Your task to perform on an android device: open chrome and create a bookmark for the current page Image 0: 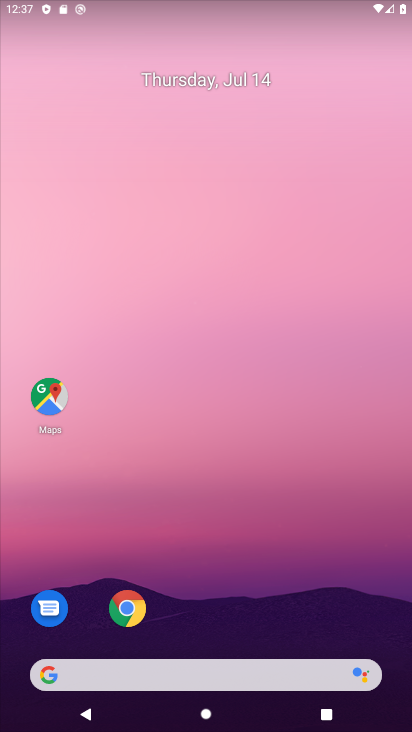
Step 0: drag from (273, 443) to (294, 33)
Your task to perform on an android device: open chrome and create a bookmark for the current page Image 1: 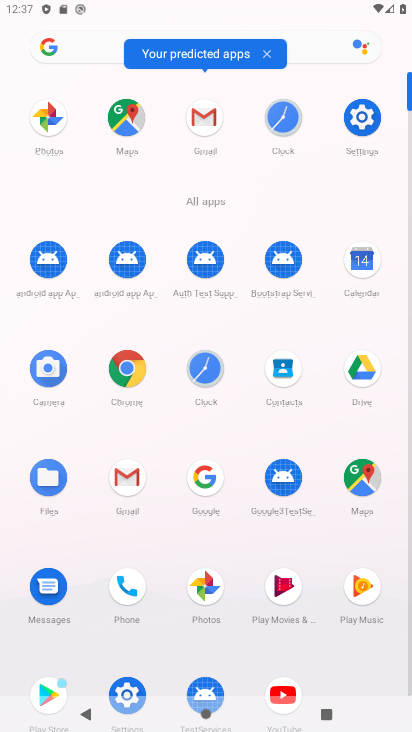
Step 1: click (123, 365)
Your task to perform on an android device: open chrome and create a bookmark for the current page Image 2: 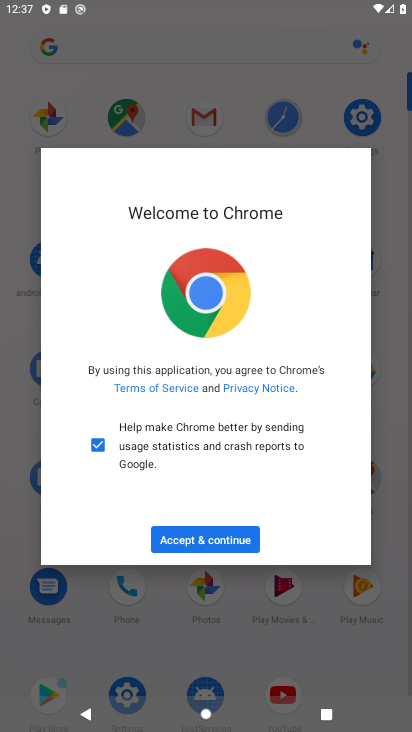
Step 2: click (187, 540)
Your task to perform on an android device: open chrome and create a bookmark for the current page Image 3: 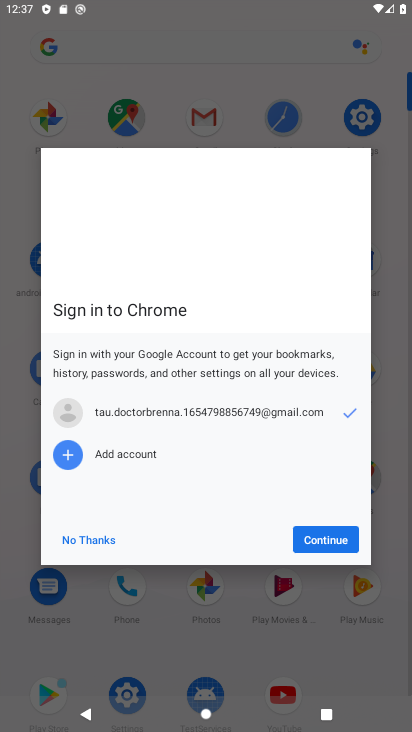
Step 3: click (96, 543)
Your task to perform on an android device: open chrome and create a bookmark for the current page Image 4: 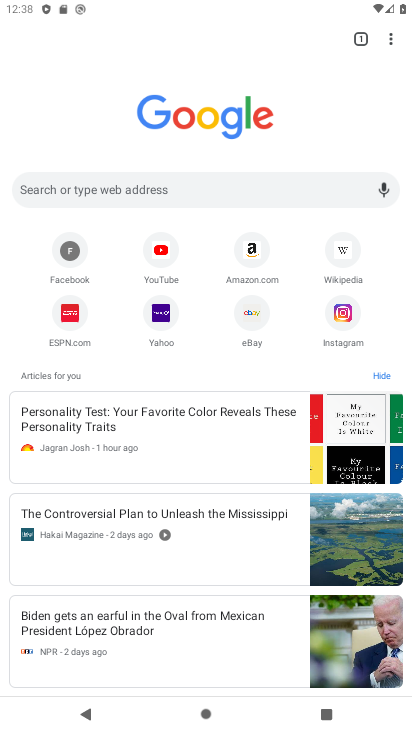
Step 4: task complete